Your task to perform on an android device: What's on my calendar today? Image 0: 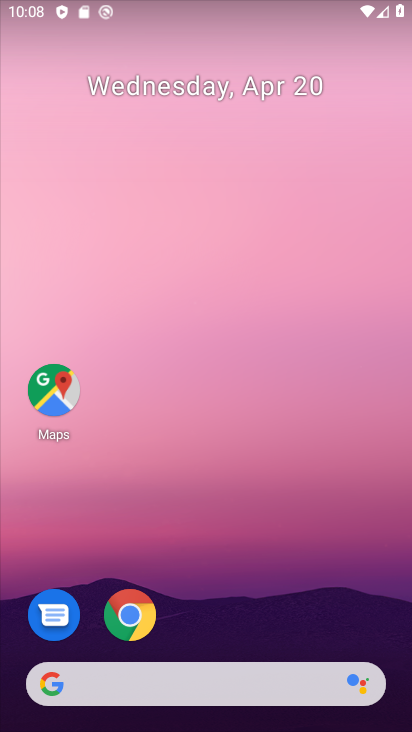
Step 0: drag from (229, 578) to (215, 292)
Your task to perform on an android device: What's on my calendar today? Image 1: 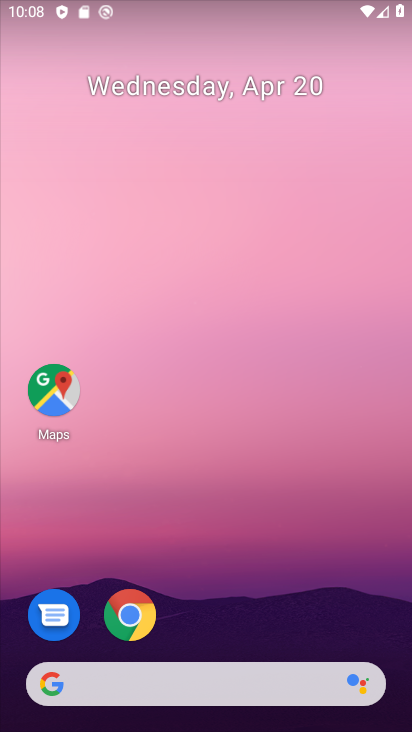
Step 1: drag from (277, 546) to (257, 93)
Your task to perform on an android device: What's on my calendar today? Image 2: 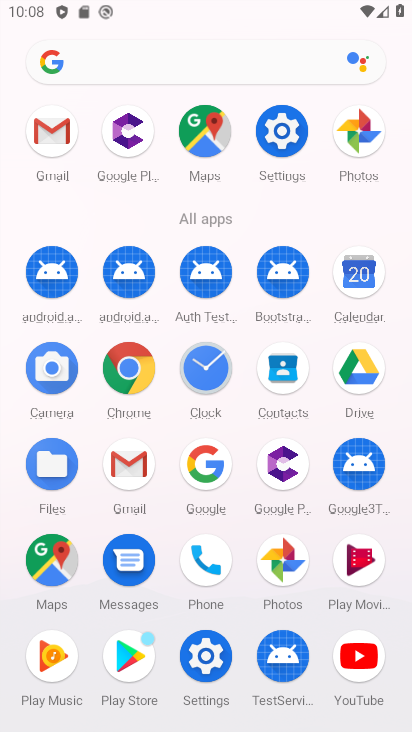
Step 2: click (358, 271)
Your task to perform on an android device: What's on my calendar today? Image 3: 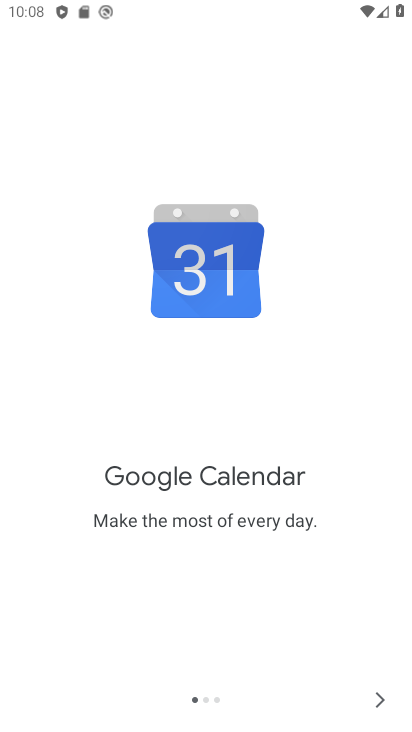
Step 3: click (382, 696)
Your task to perform on an android device: What's on my calendar today? Image 4: 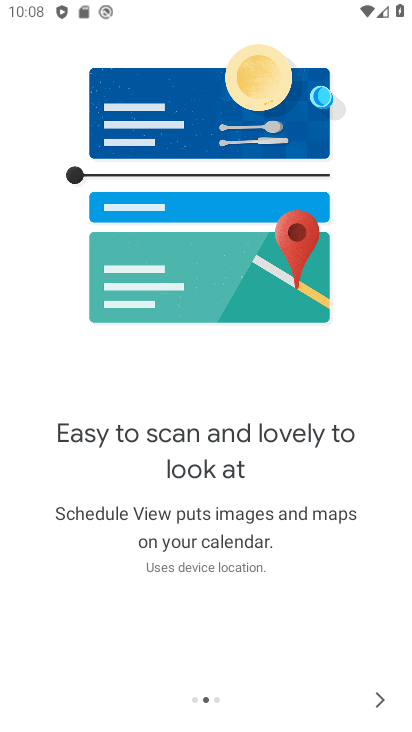
Step 4: click (382, 696)
Your task to perform on an android device: What's on my calendar today? Image 5: 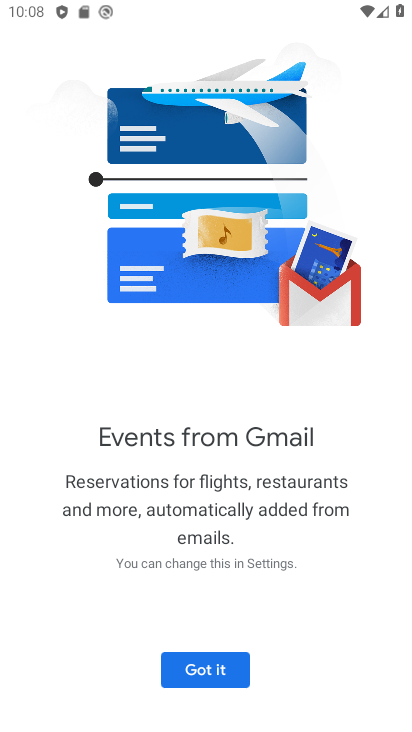
Step 5: click (207, 662)
Your task to perform on an android device: What's on my calendar today? Image 6: 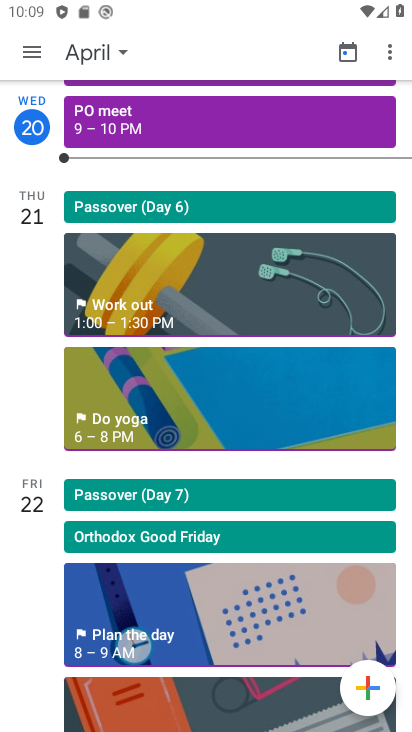
Step 6: click (33, 50)
Your task to perform on an android device: What's on my calendar today? Image 7: 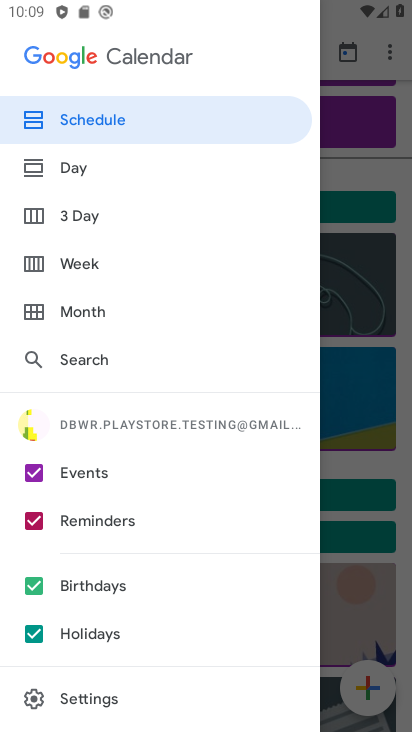
Step 7: click (87, 168)
Your task to perform on an android device: What's on my calendar today? Image 8: 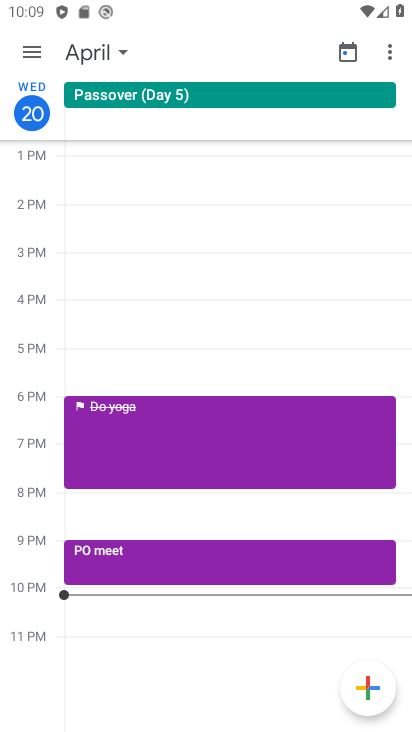
Step 8: task complete